Your task to perform on an android device: allow notifications from all sites in the chrome app Image 0: 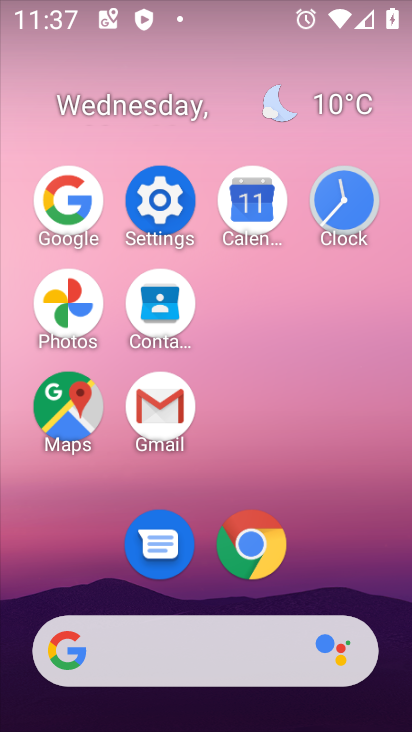
Step 0: click (268, 539)
Your task to perform on an android device: allow notifications from all sites in the chrome app Image 1: 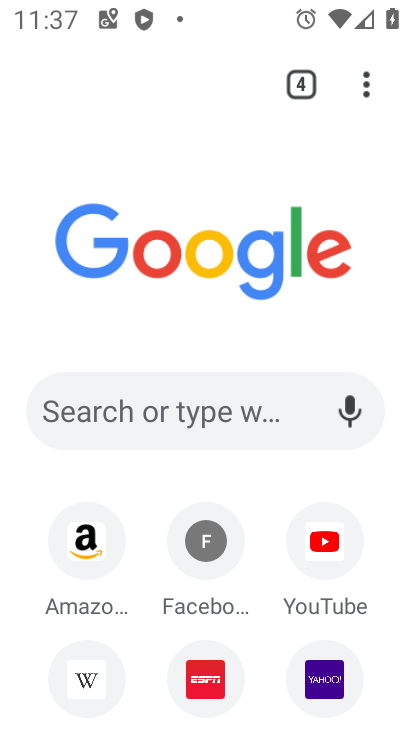
Step 1: click (368, 92)
Your task to perform on an android device: allow notifications from all sites in the chrome app Image 2: 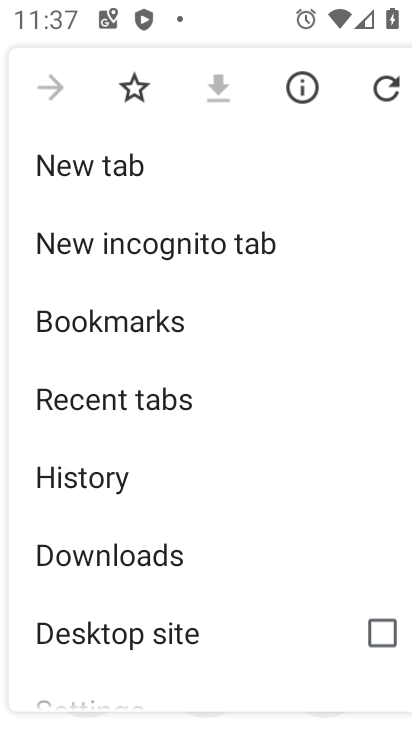
Step 2: drag from (269, 567) to (307, 166)
Your task to perform on an android device: allow notifications from all sites in the chrome app Image 3: 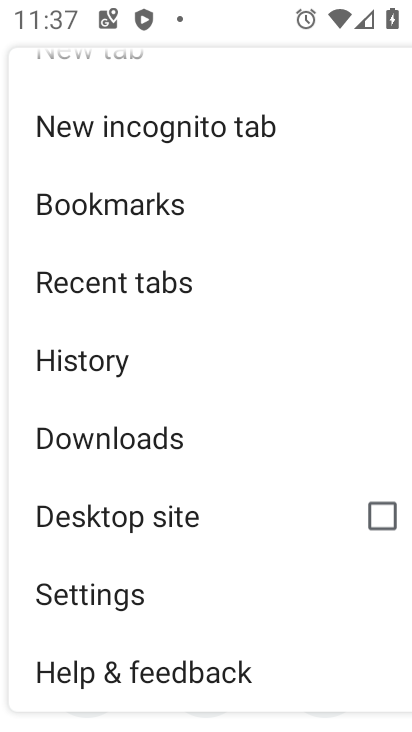
Step 3: click (102, 592)
Your task to perform on an android device: allow notifications from all sites in the chrome app Image 4: 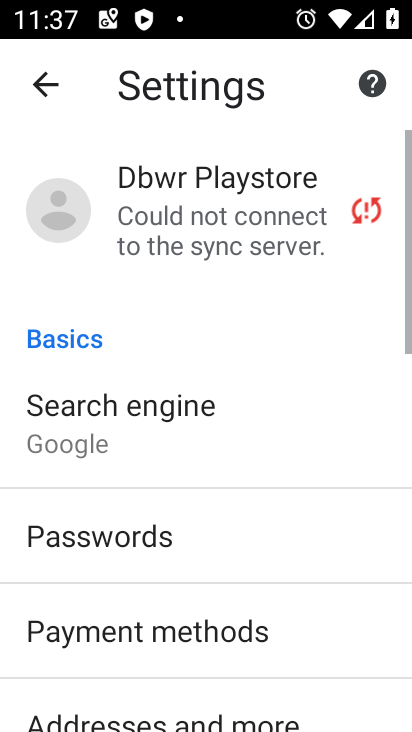
Step 4: drag from (247, 618) to (251, 234)
Your task to perform on an android device: allow notifications from all sites in the chrome app Image 5: 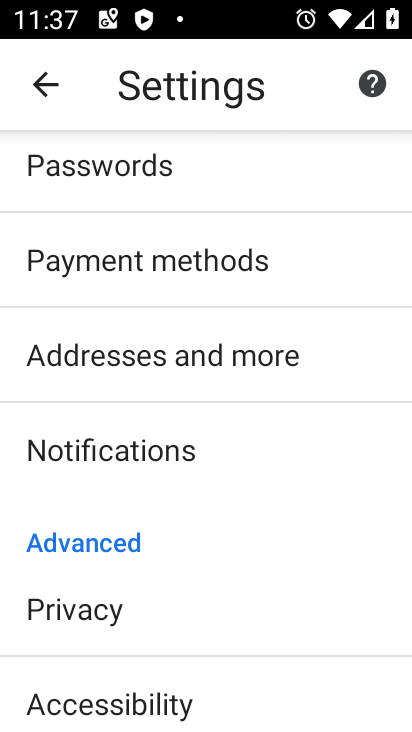
Step 5: drag from (237, 523) to (272, 223)
Your task to perform on an android device: allow notifications from all sites in the chrome app Image 6: 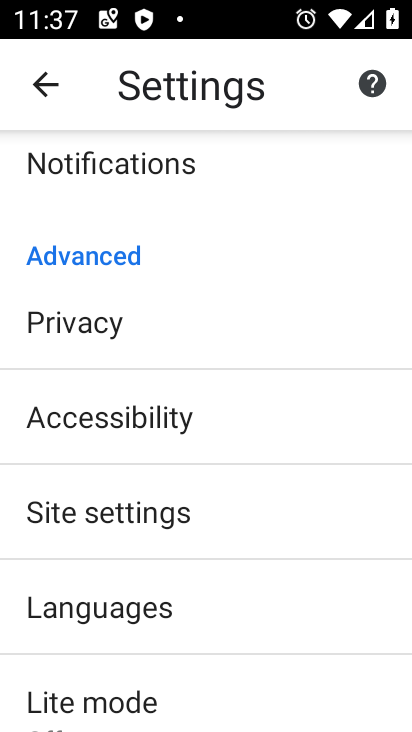
Step 6: drag from (231, 558) to (244, 223)
Your task to perform on an android device: allow notifications from all sites in the chrome app Image 7: 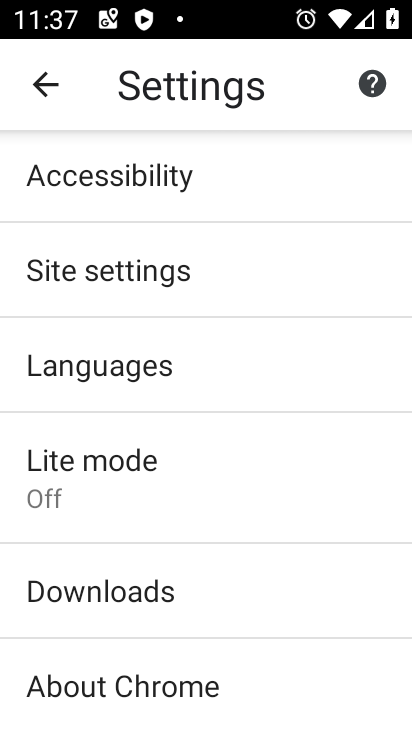
Step 7: drag from (238, 610) to (252, 289)
Your task to perform on an android device: allow notifications from all sites in the chrome app Image 8: 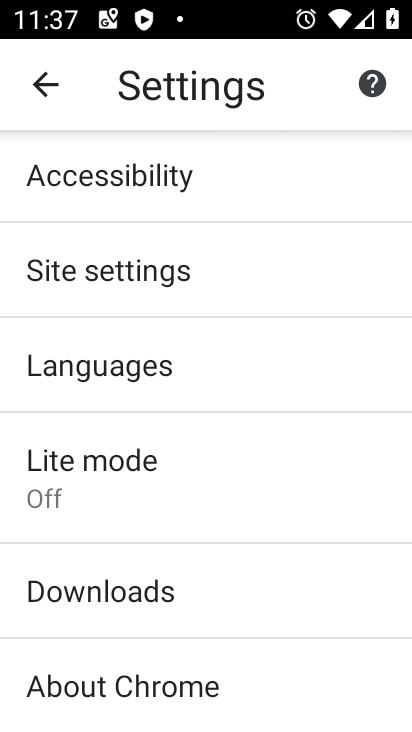
Step 8: drag from (309, 457) to (278, 225)
Your task to perform on an android device: allow notifications from all sites in the chrome app Image 9: 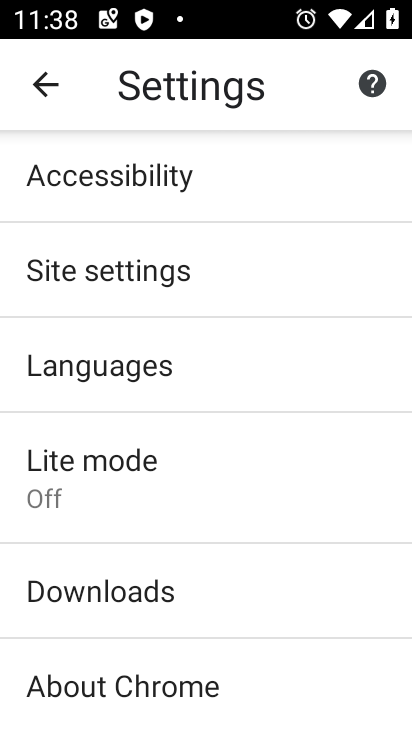
Step 9: drag from (327, 206) to (294, 598)
Your task to perform on an android device: allow notifications from all sites in the chrome app Image 10: 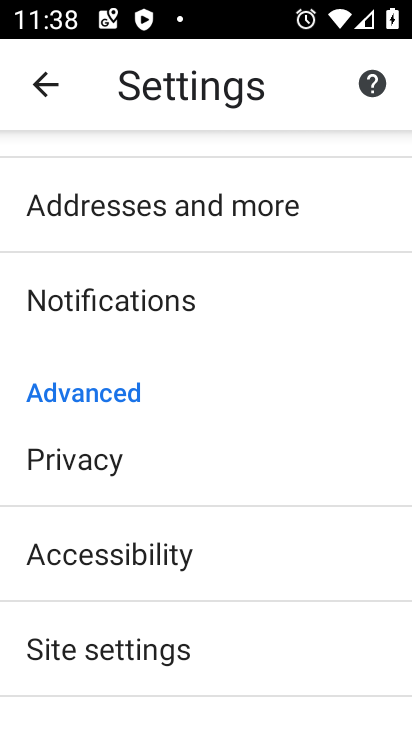
Step 10: click (187, 306)
Your task to perform on an android device: allow notifications from all sites in the chrome app Image 11: 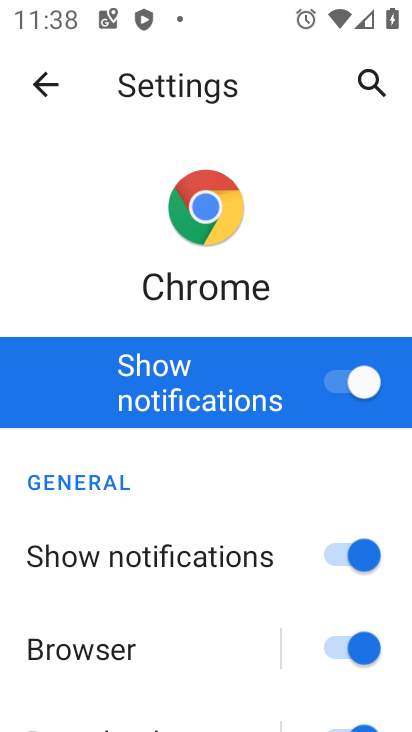
Step 11: task complete